Your task to perform on an android device: Open Youtube and go to the subscriptions tab Image 0: 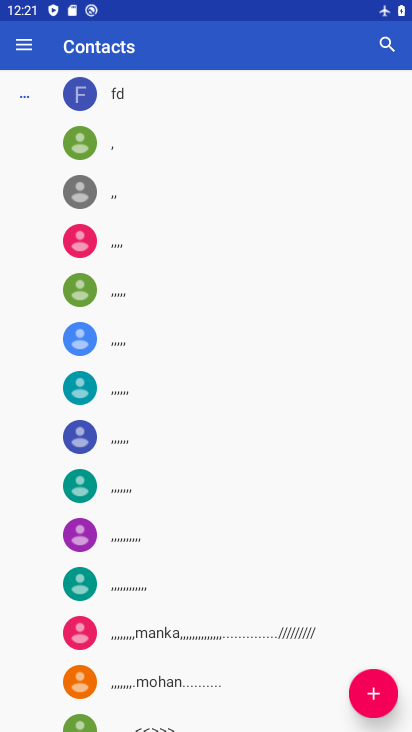
Step 0: press home button
Your task to perform on an android device: Open Youtube and go to the subscriptions tab Image 1: 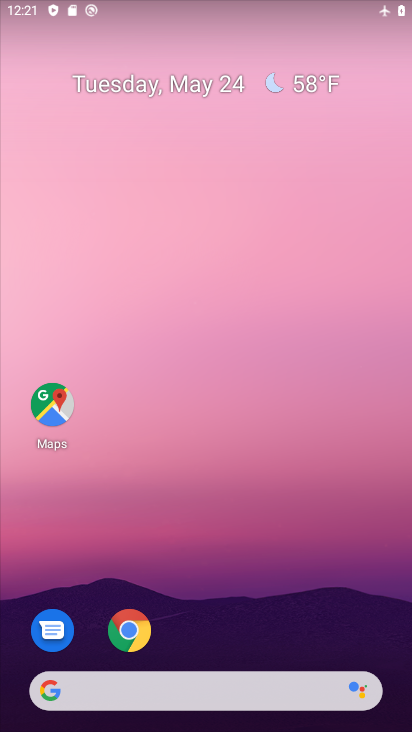
Step 1: drag from (239, 625) to (181, 121)
Your task to perform on an android device: Open Youtube and go to the subscriptions tab Image 2: 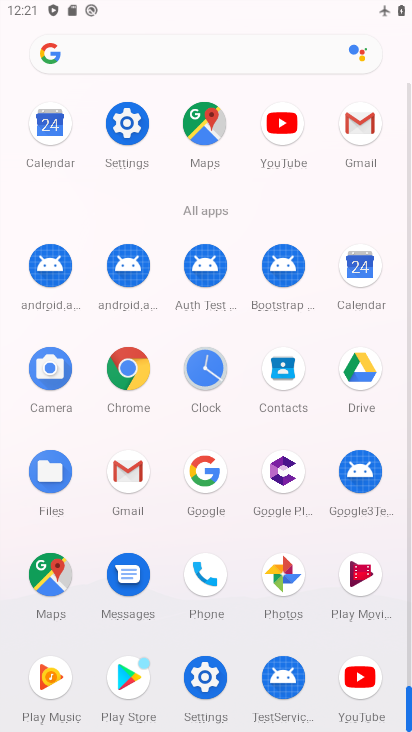
Step 2: click (366, 676)
Your task to perform on an android device: Open Youtube and go to the subscriptions tab Image 3: 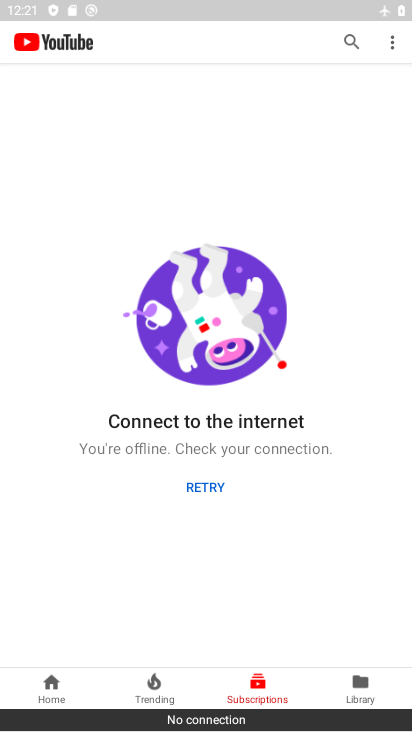
Step 3: task complete